Your task to perform on an android device: What's the weather? Image 0: 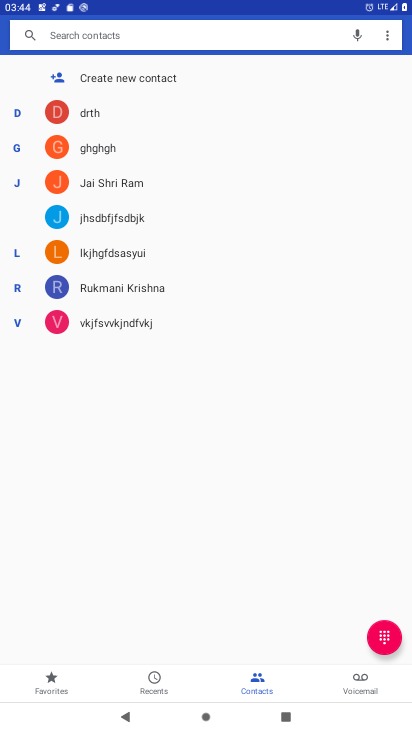
Step 0: press home button
Your task to perform on an android device: What's the weather? Image 1: 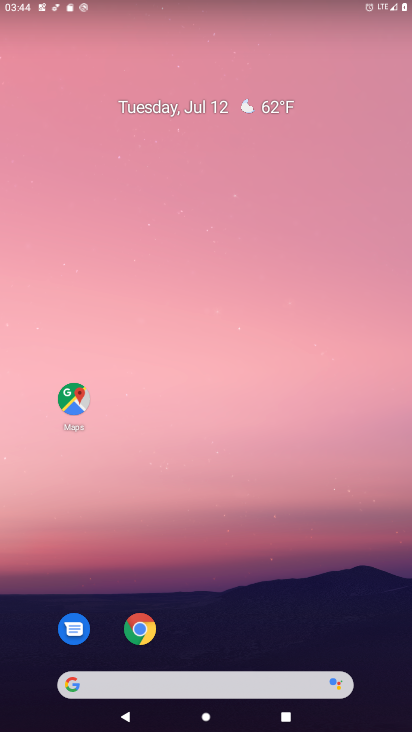
Step 1: click (218, 680)
Your task to perform on an android device: What's the weather? Image 2: 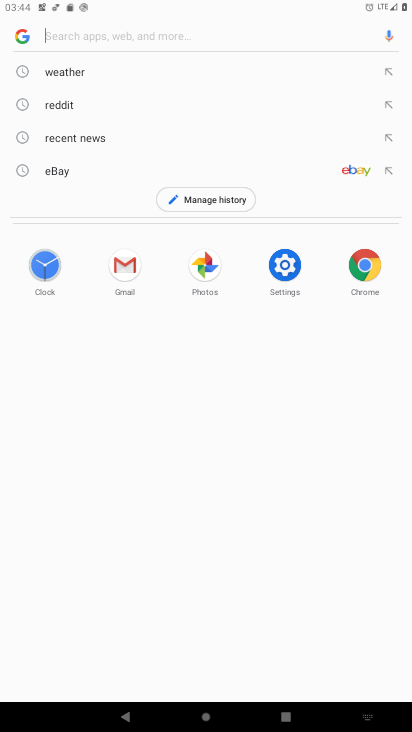
Step 2: click (80, 75)
Your task to perform on an android device: What's the weather? Image 3: 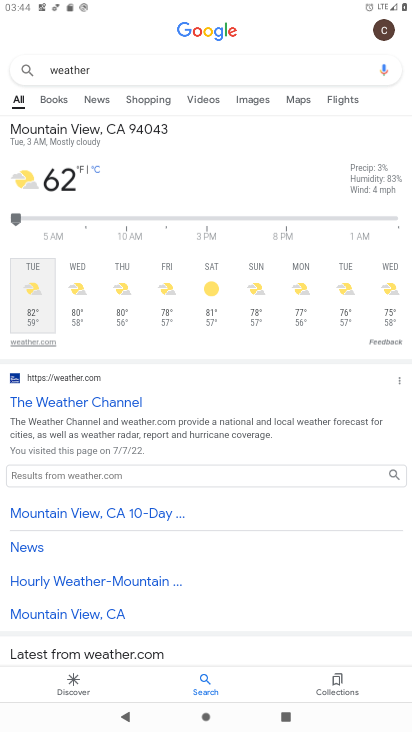
Step 3: task complete